Your task to perform on an android device: Open notification settings Image 0: 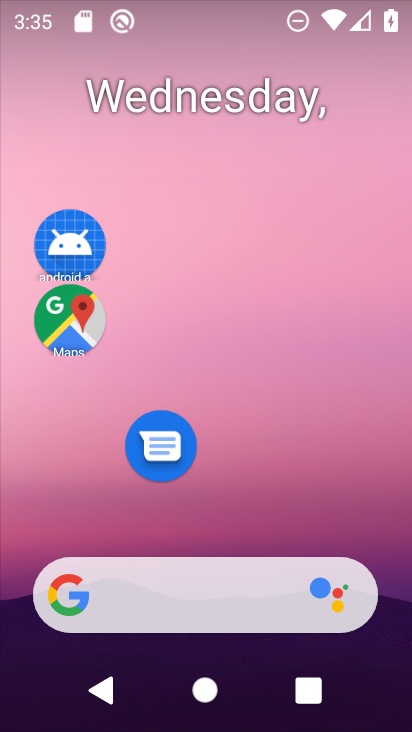
Step 0: drag from (234, 543) to (283, 132)
Your task to perform on an android device: Open notification settings Image 1: 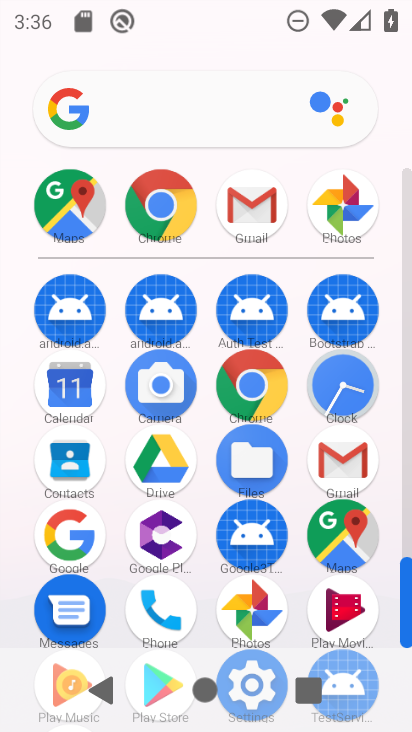
Step 1: drag from (406, 591) to (398, 702)
Your task to perform on an android device: Open notification settings Image 2: 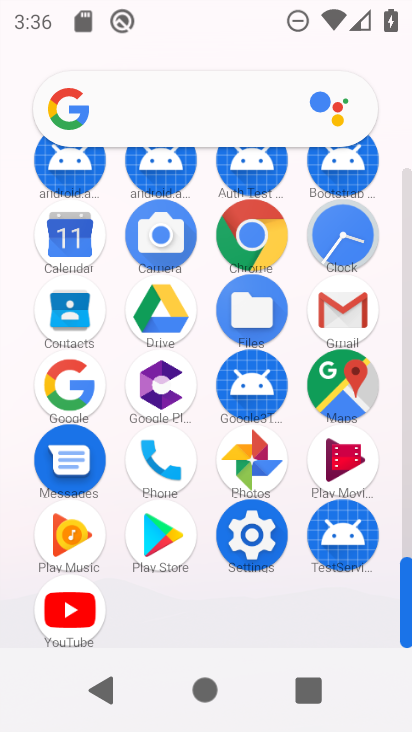
Step 2: click (227, 537)
Your task to perform on an android device: Open notification settings Image 3: 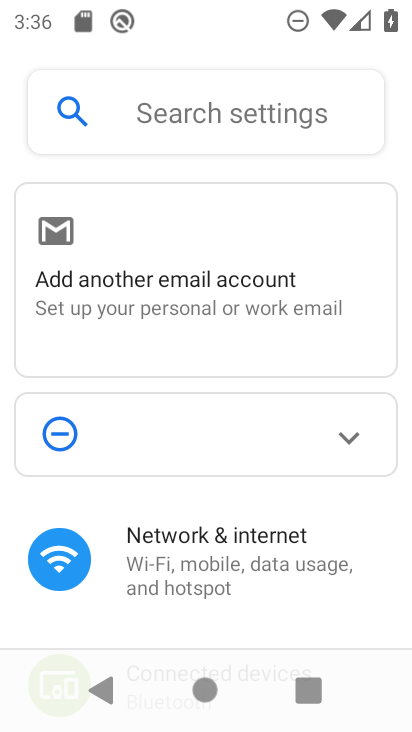
Step 3: drag from (224, 522) to (233, 93)
Your task to perform on an android device: Open notification settings Image 4: 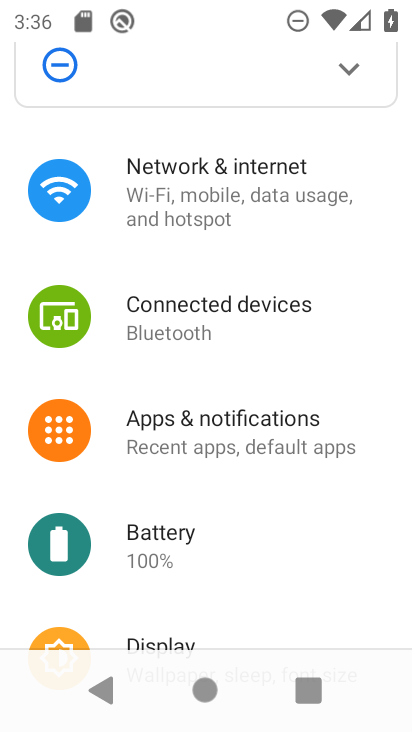
Step 4: click (240, 434)
Your task to perform on an android device: Open notification settings Image 5: 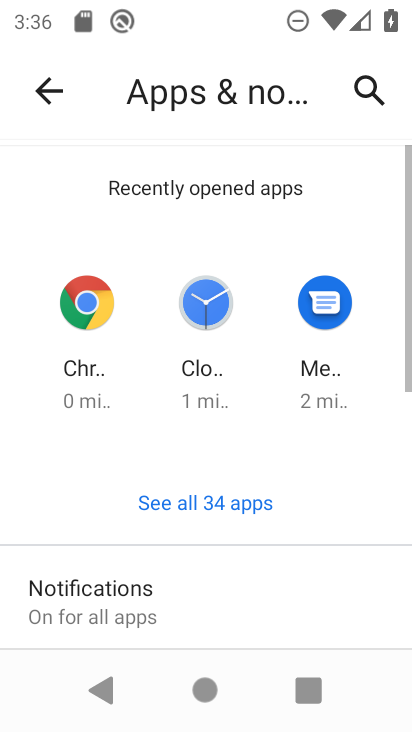
Step 5: task complete